Your task to perform on an android device: Open Chrome and go to the settings page Image 0: 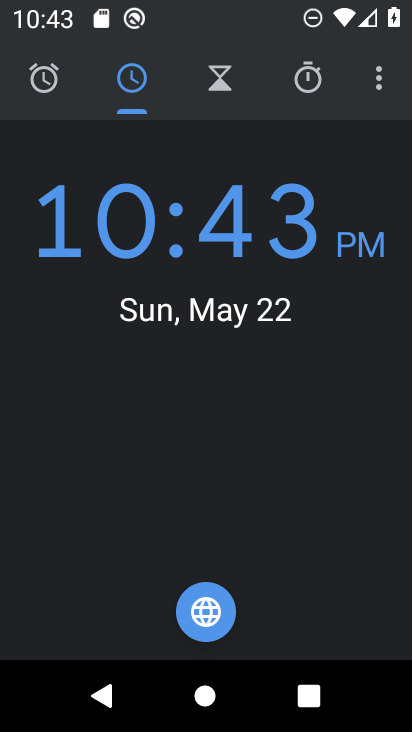
Step 0: press home button
Your task to perform on an android device: Open Chrome and go to the settings page Image 1: 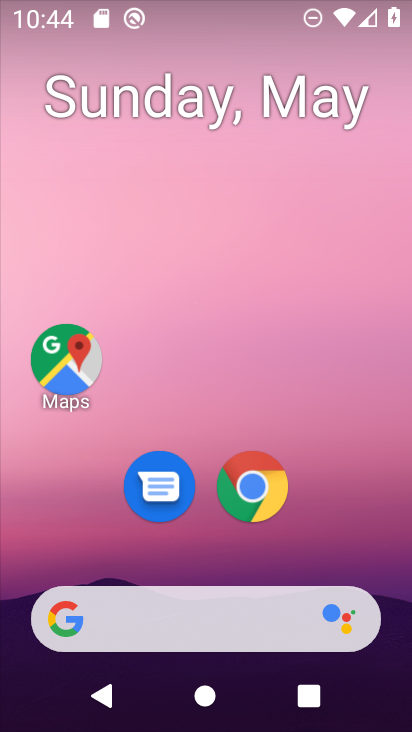
Step 1: click (249, 490)
Your task to perform on an android device: Open Chrome and go to the settings page Image 2: 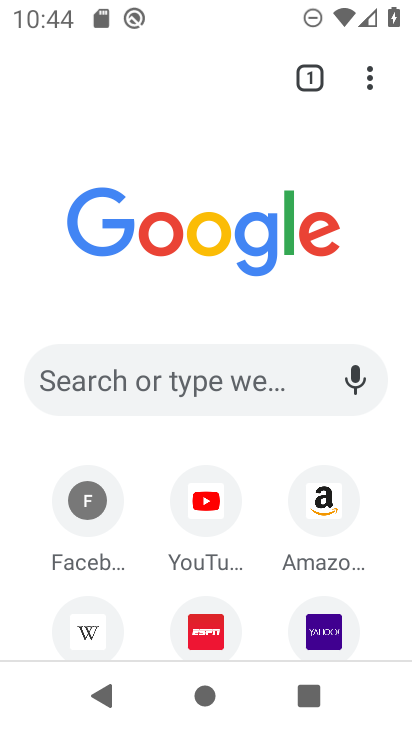
Step 2: click (374, 71)
Your task to perform on an android device: Open Chrome and go to the settings page Image 3: 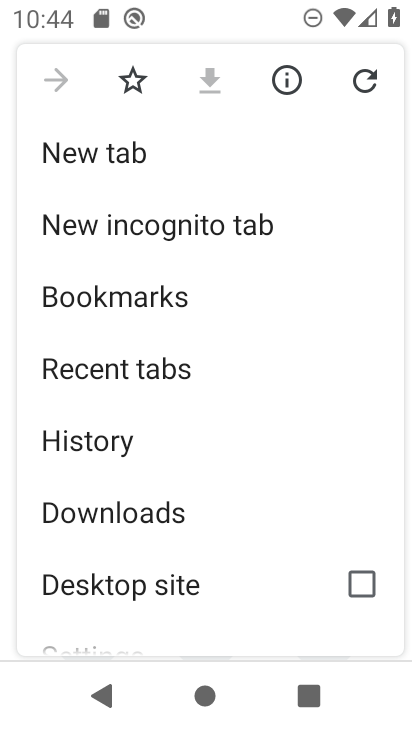
Step 3: drag from (243, 592) to (204, 131)
Your task to perform on an android device: Open Chrome and go to the settings page Image 4: 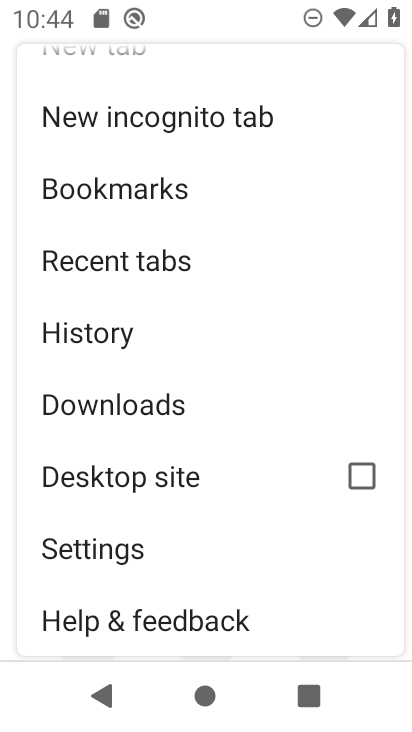
Step 4: click (138, 545)
Your task to perform on an android device: Open Chrome and go to the settings page Image 5: 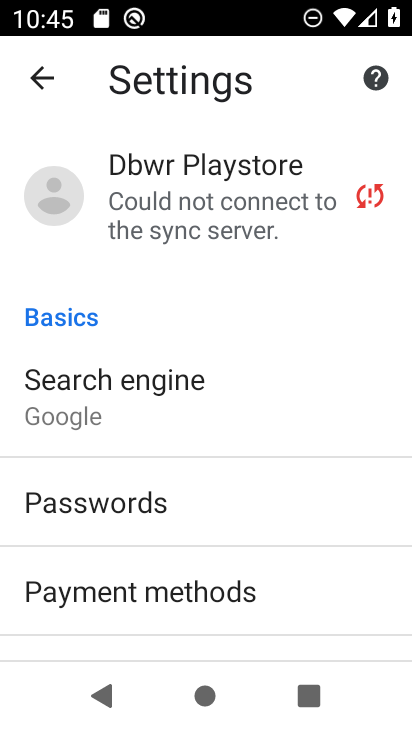
Step 5: task complete